Your task to perform on an android device: Is it going to rain today? Image 0: 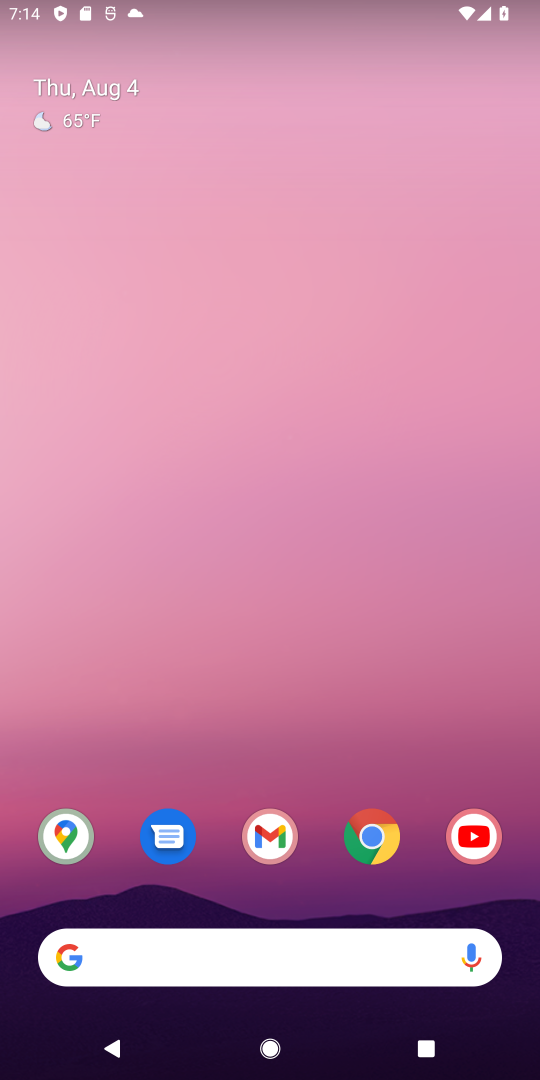
Step 0: click (219, 964)
Your task to perform on an android device: Is it going to rain today? Image 1: 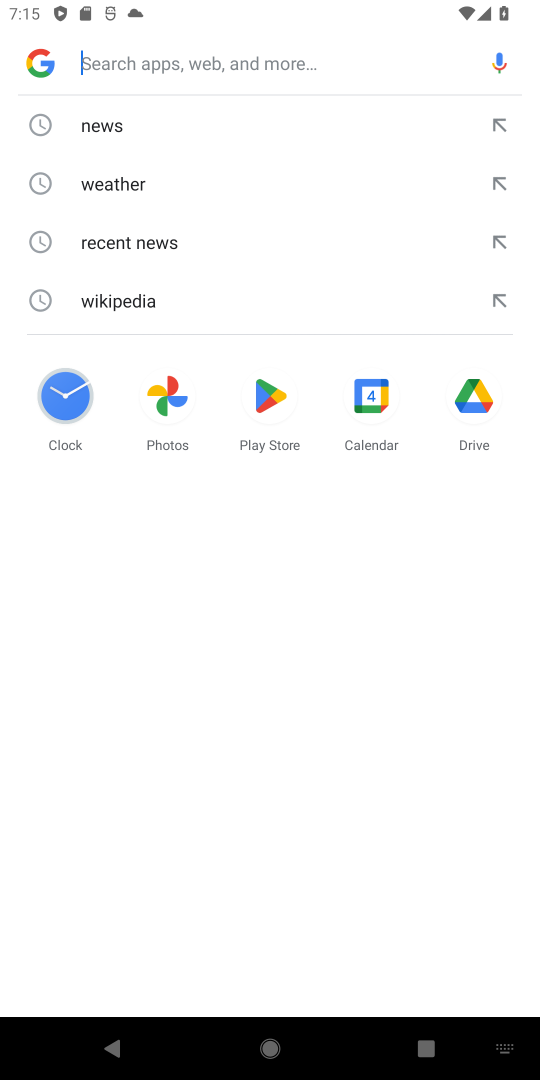
Step 1: click (125, 176)
Your task to perform on an android device: Is it going to rain today? Image 2: 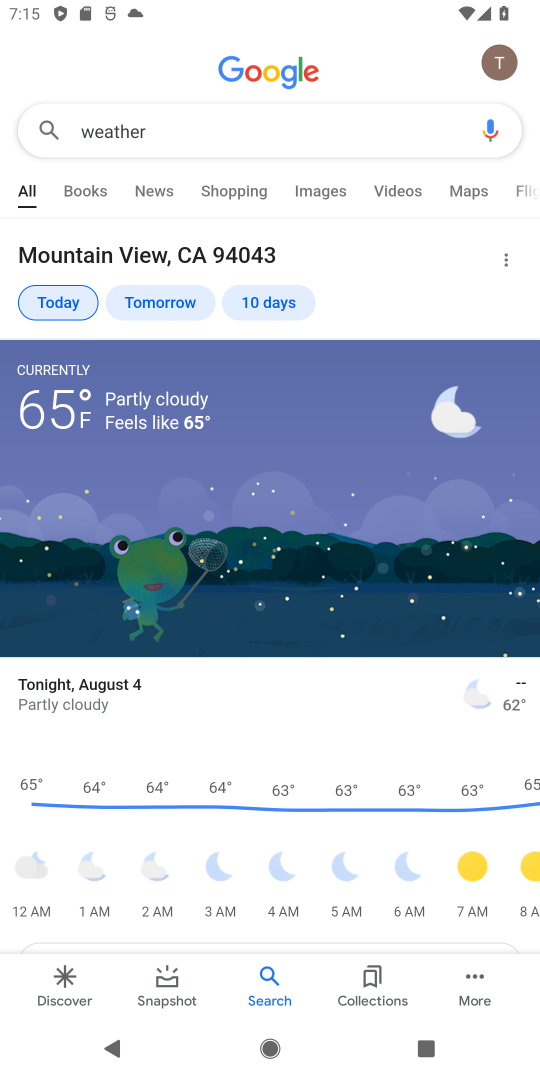
Step 2: task complete